Your task to perform on an android device: stop showing notifications on the lock screen Image 0: 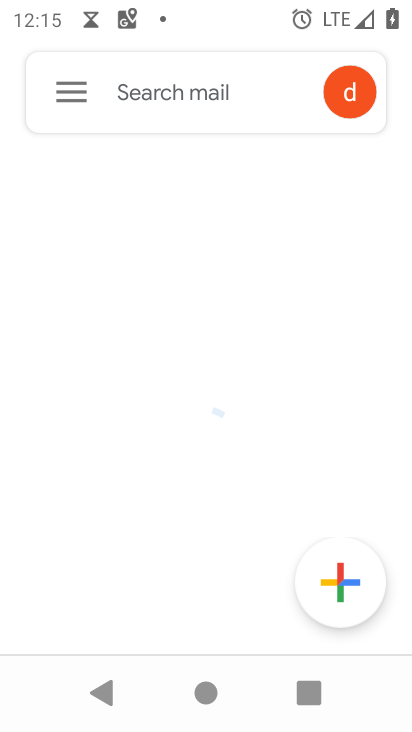
Step 0: press home button
Your task to perform on an android device: stop showing notifications on the lock screen Image 1: 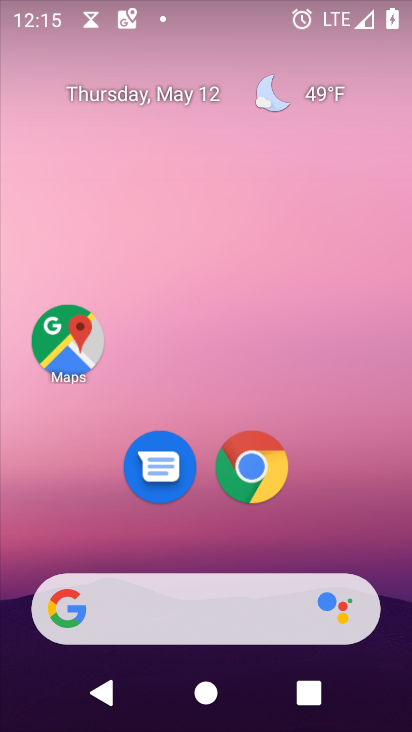
Step 1: drag from (206, 585) to (292, 148)
Your task to perform on an android device: stop showing notifications on the lock screen Image 2: 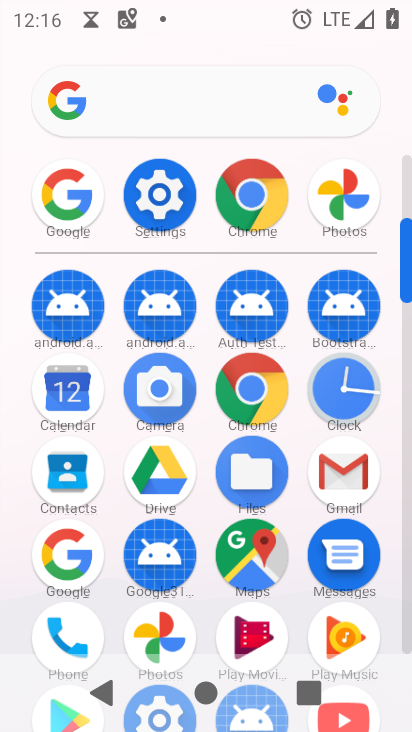
Step 2: click (169, 208)
Your task to perform on an android device: stop showing notifications on the lock screen Image 3: 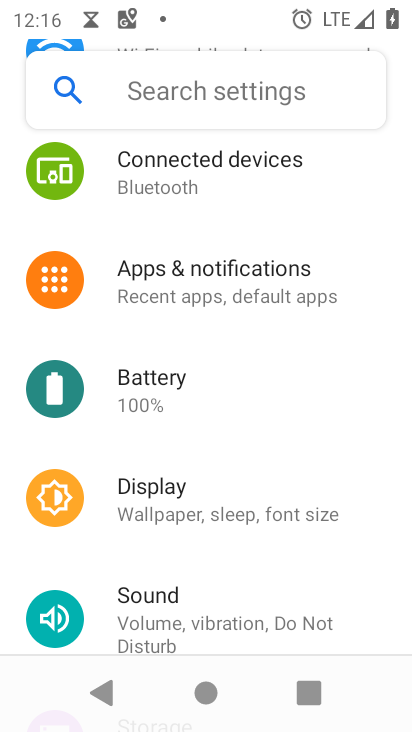
Step 3: click (242, 275)
Your task to perform on an android device: stop showing notifications on the lock screen Image 4: 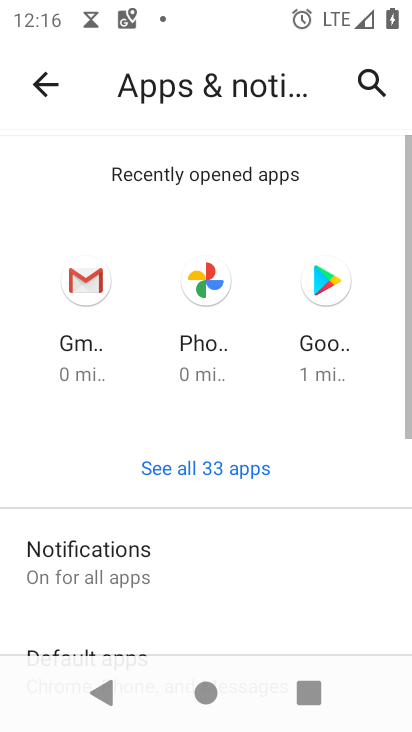
Step 4: click (116, 562)
Your task to perform on an android device: stop showing notifications on the lock screen Image 5: 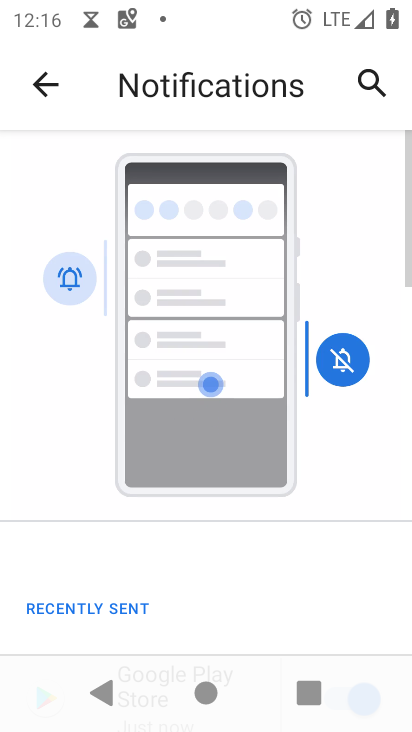
Step 5: drag from (212, 623) to (267, 163)
Your task to perform on an android device: stop showing notifications on the lock screen Image 6: 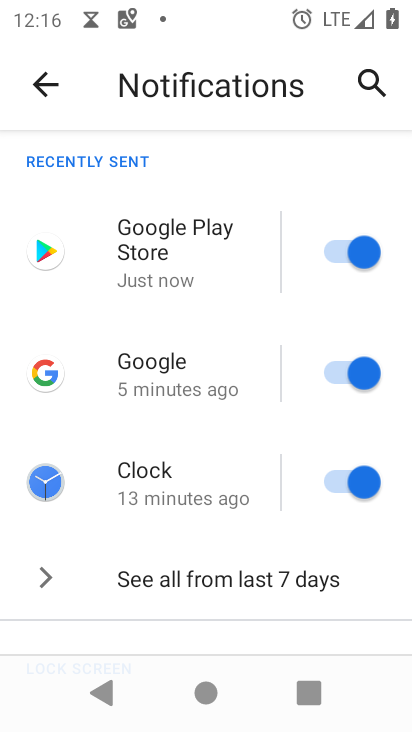
Step 6: drag from (203, 551) to (217, 94)
Your task to perform on an android device: stop showing notifications on the lock screen Image 7: 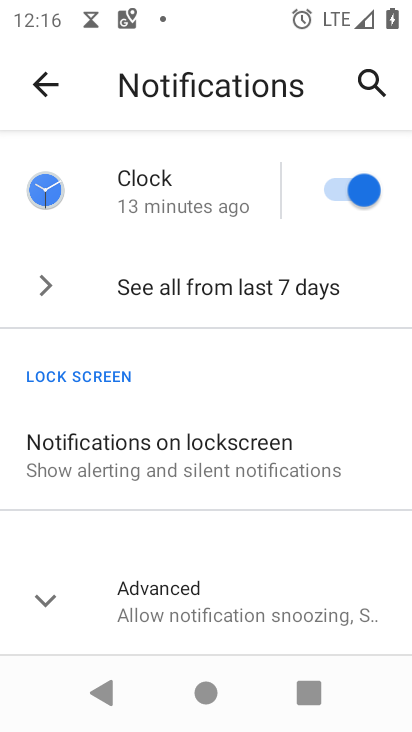
Step 7: click (155, 472)
Your task to perform on an android device: stop showing notifications on the lock screen Image 8: 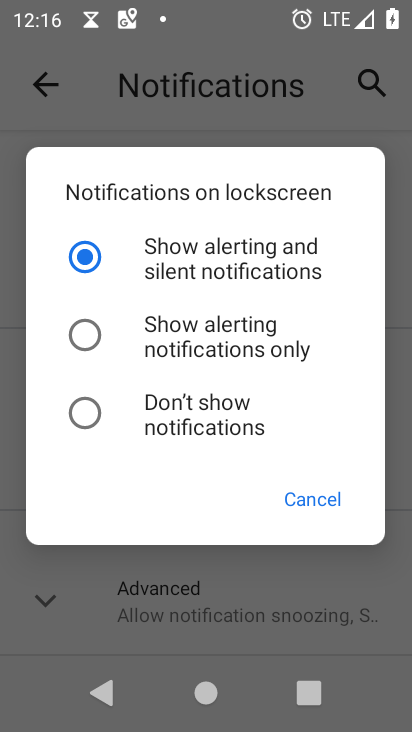
Step 8: click (89, 410)
Your task to perform on an android device: stop showing notifications on the lock screen Image 9: 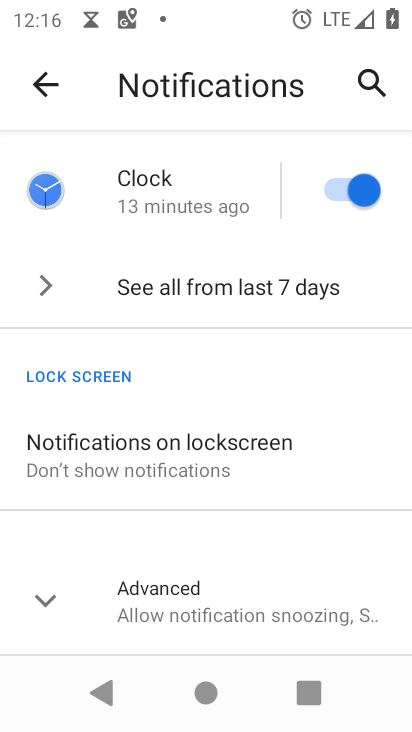
Step 9: task complete